Your task to perform on an android device: Empty the shopping cart on costco.com. Image 0: 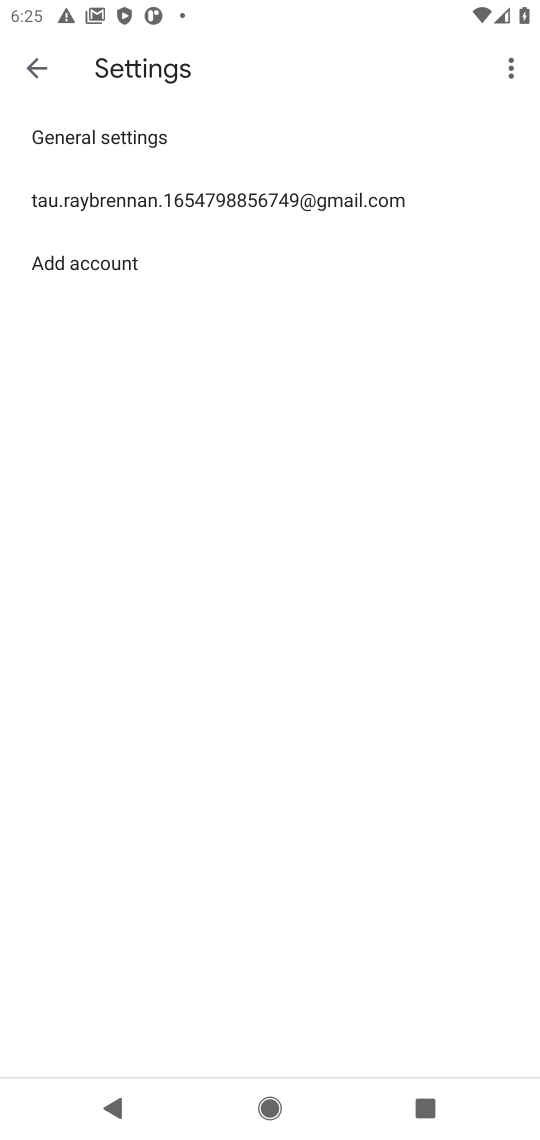
Step 0: press home button
Your task to perform on an android device: Empty the shopping cart on costco.com. Image 1: 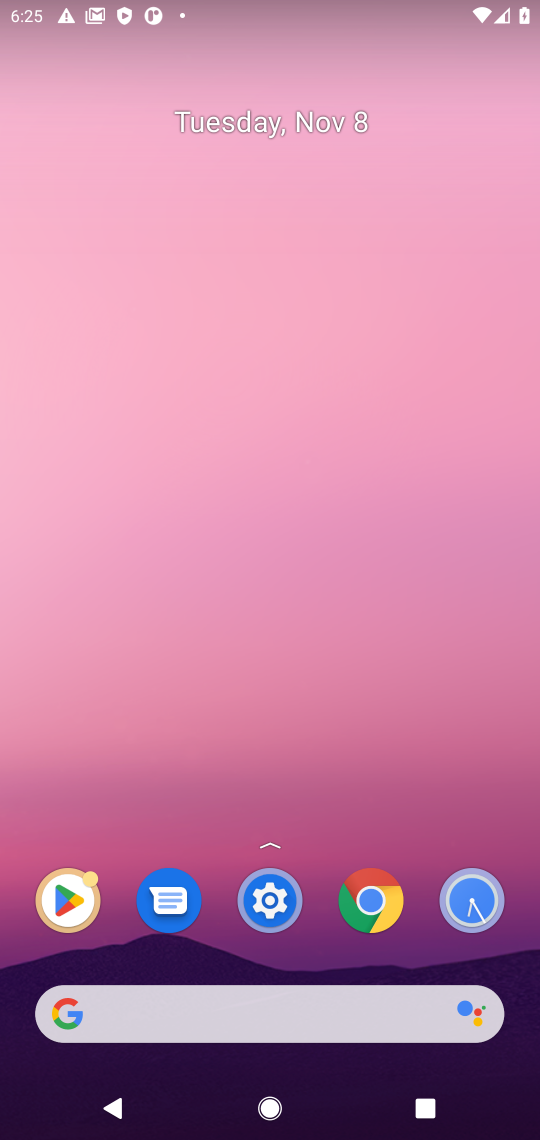
Step 1: click (368, 923)
Your task to perform on an android device: Empty the shopping cart on costco.com. Image 2: 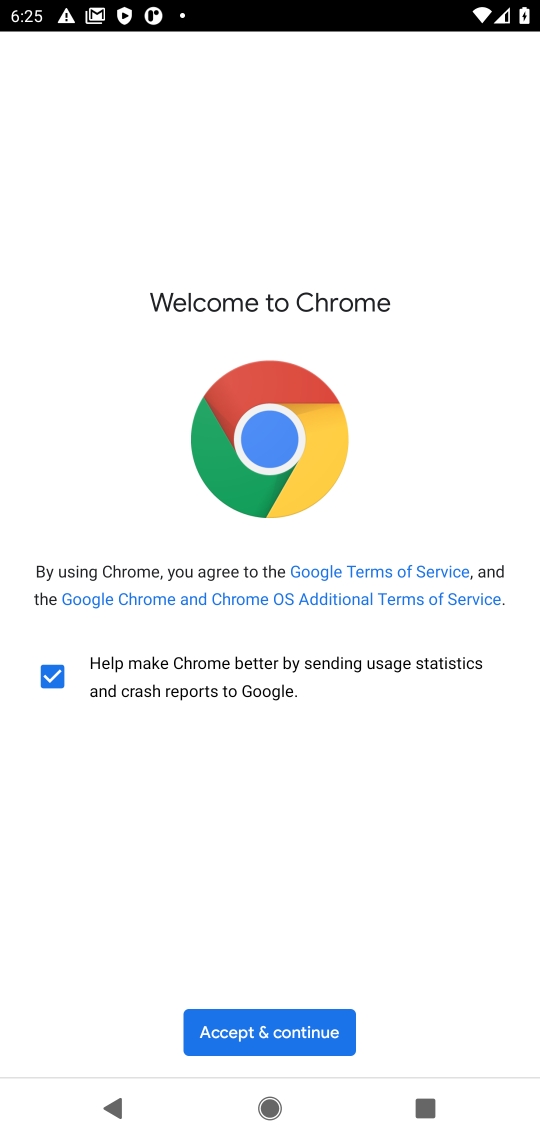
Step 2: click (300, 1037)
Your task to perform on an android device: Empty the shopping cart on costco.com. Image 3: 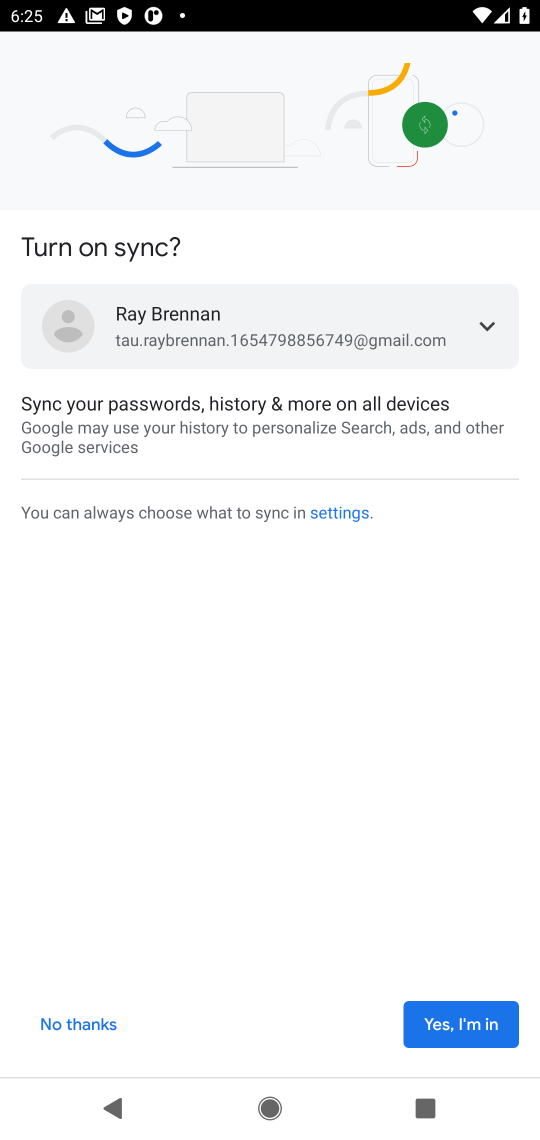
Step 3: click (477, 1029)
Your task to perform on an android device: Empty the shopping cart on costco.com. Image 4: 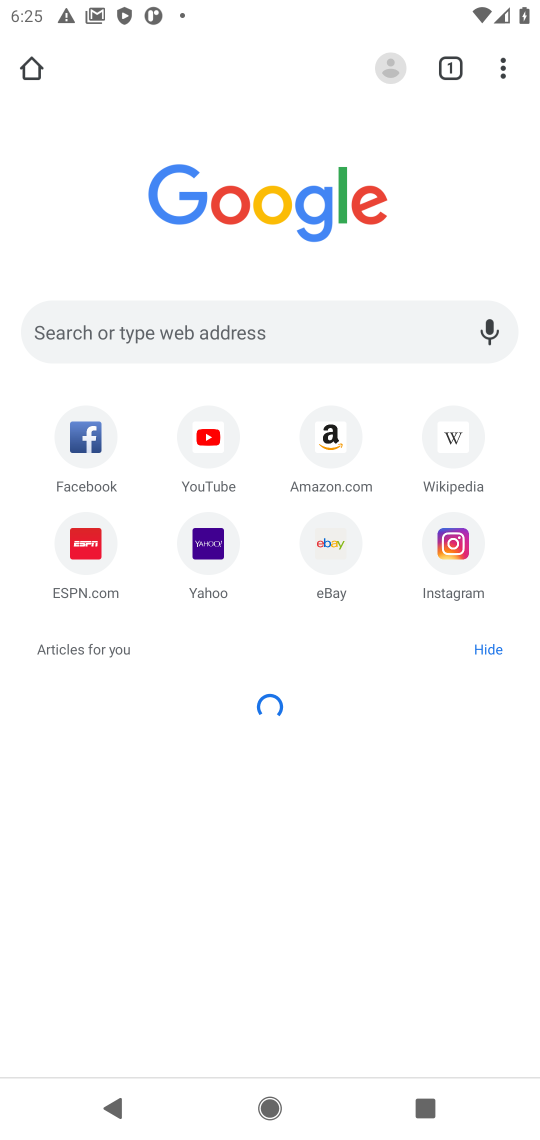
Step 4: click (196, 324)
Your task to perform on an android device: Empty the shopping cart on costco.com. Image 5: 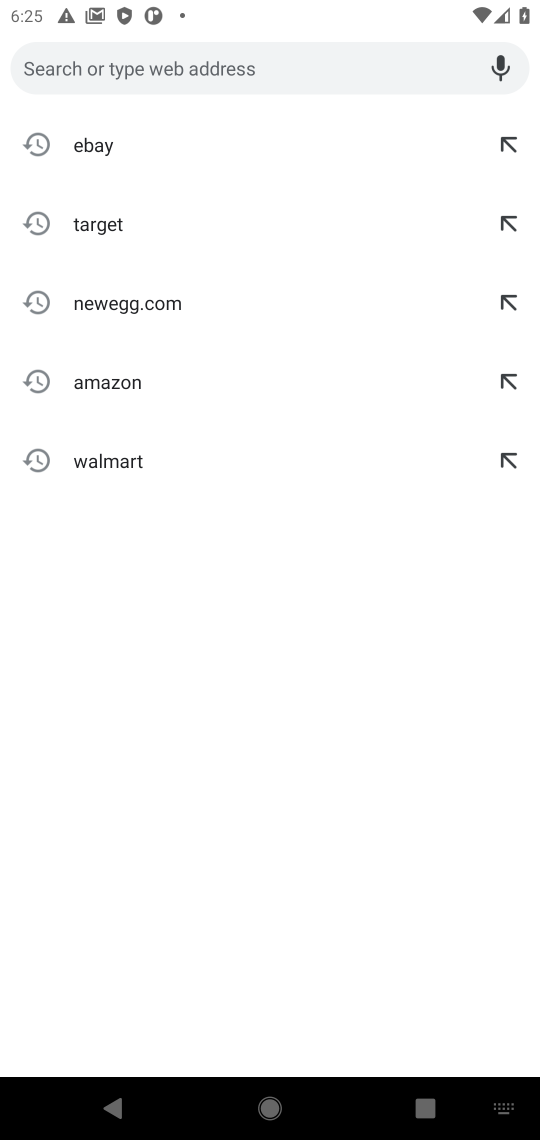
Step 5: type "costco"
Your task to perform on an android device: Empty the shopping cart on costco.com. Image 6: 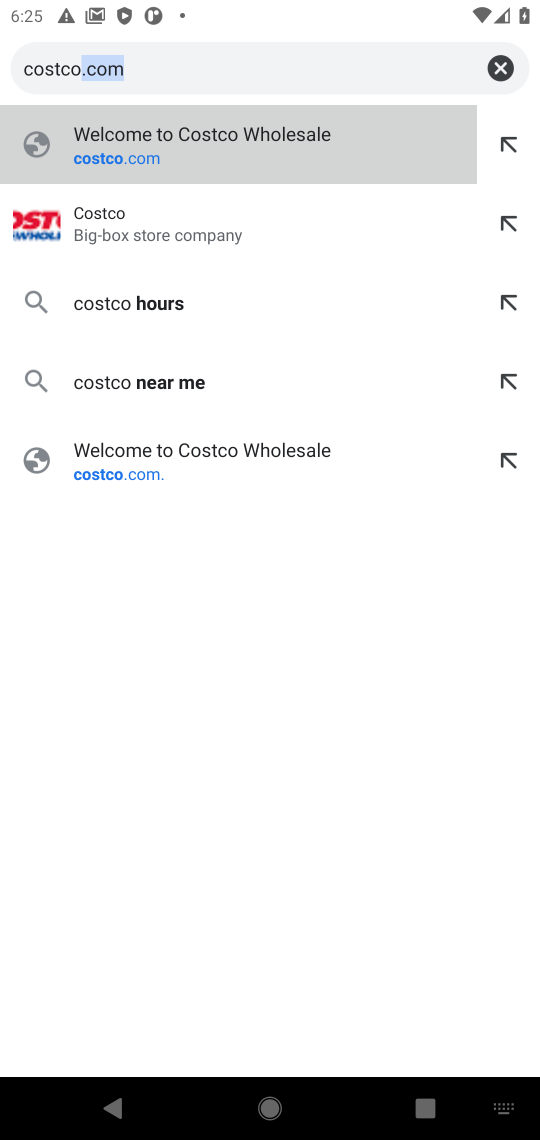
Step 6: click (96, 230)
Your task to perform on an android device: Empty the shopping cart on costco.com. Image 7: 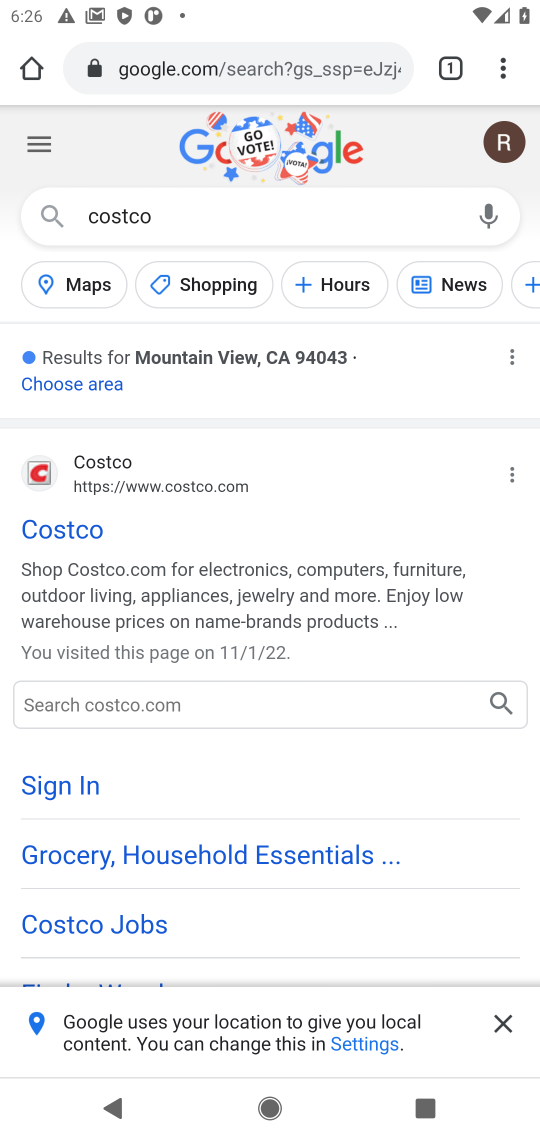
Step 7: click (57, 533)
Your task to perform on an android device: Empty the shopping cart on costco.com. Image 8: 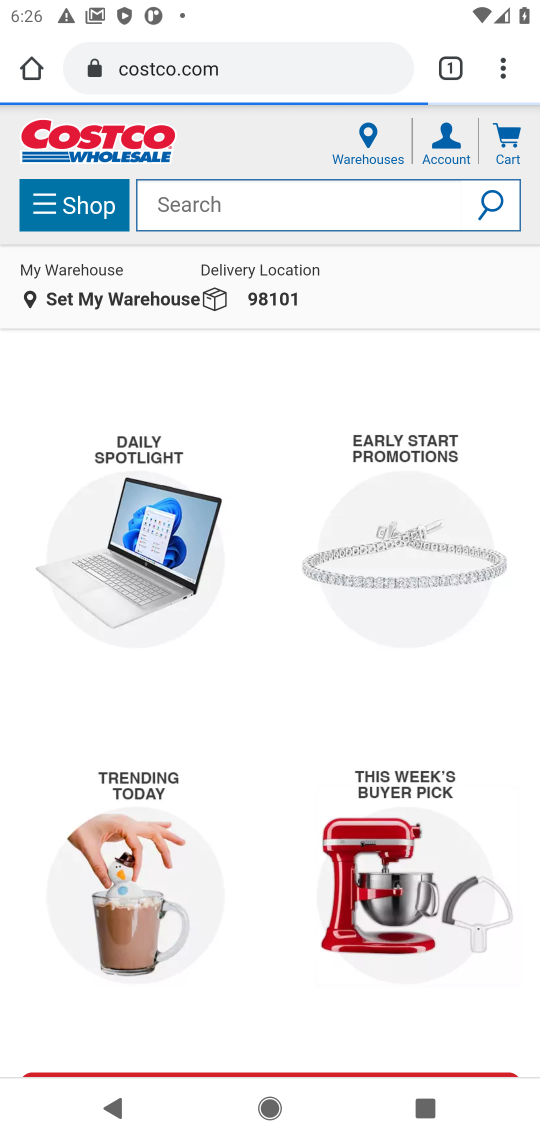
Step 8: click (292, 201)
Your task to perform on an android device: Empty the shopping cart on costco.com. Image 9: 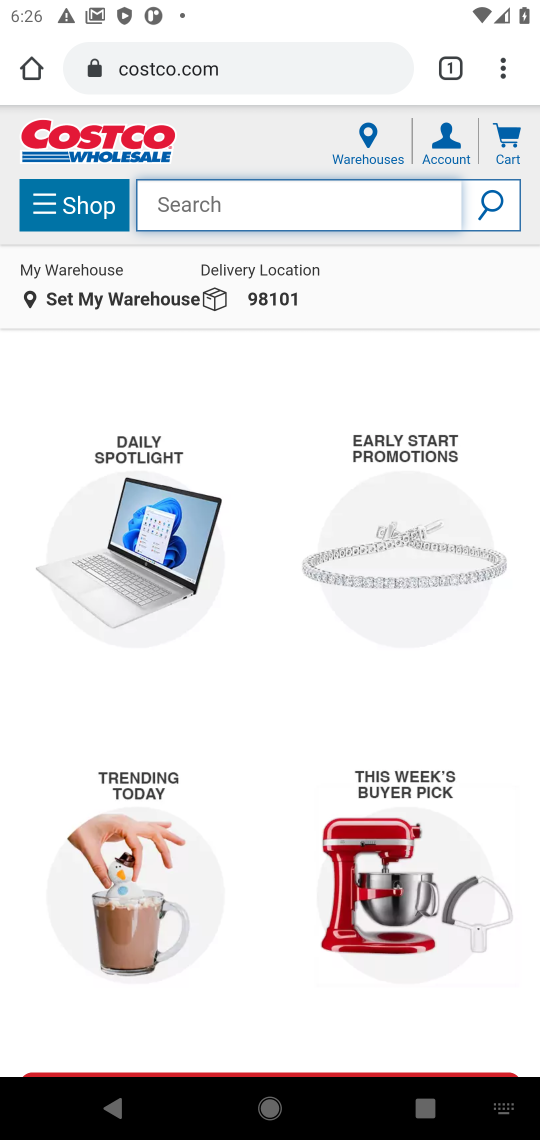
Step 9: click (499, 134)
Your task to perform on an android device: Empty the shopping cart on costco.com. Image 10: 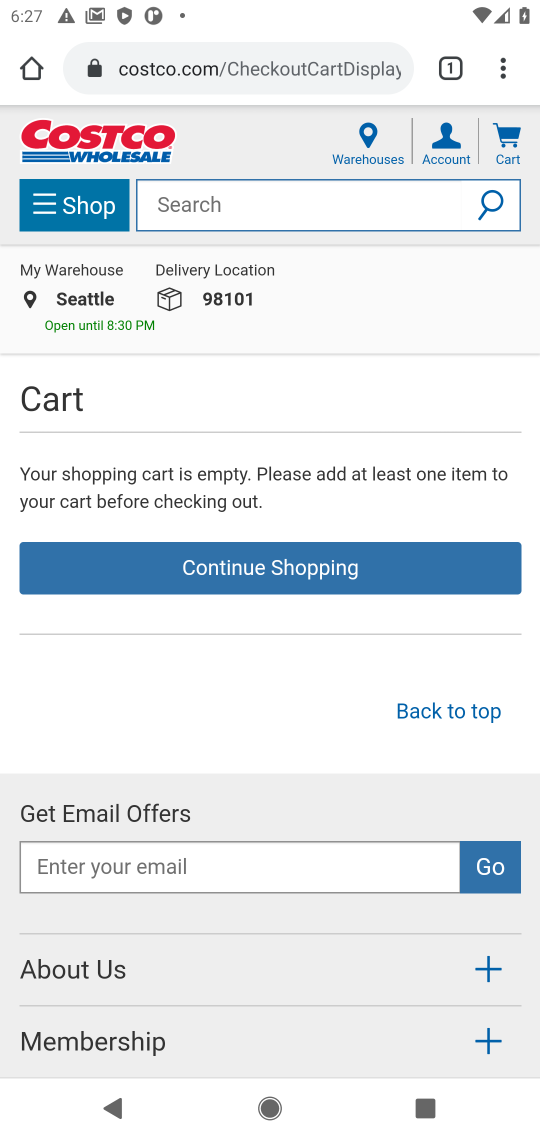
Step 10: task complete